Your task to perform on an android device: create a new album in the google photos Image 0: 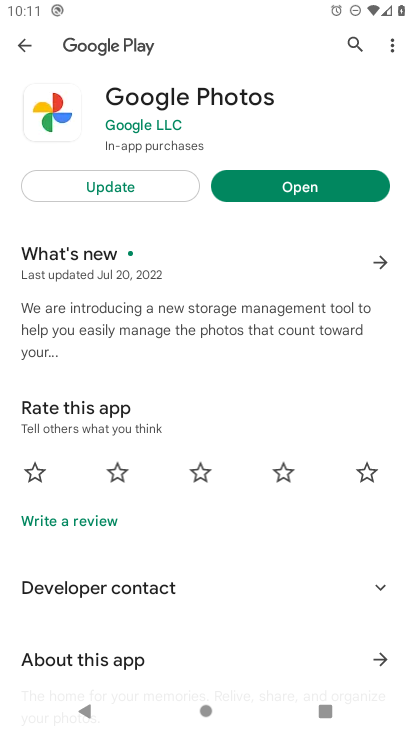
Step 0: press home button
Your task to perform on an android device: create a new album in the google photos Image 1: 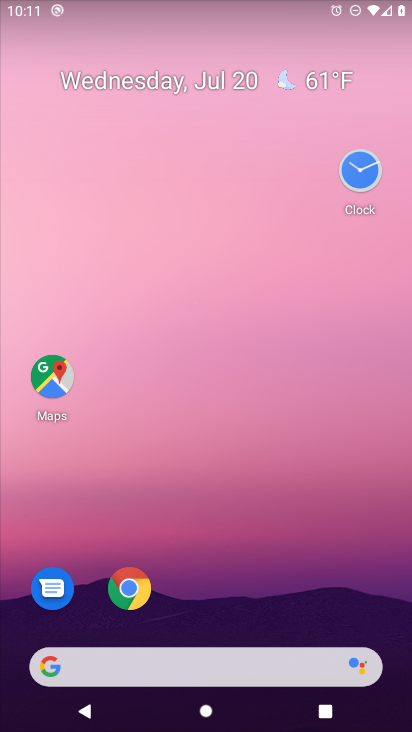
Step 1: drag from (26, 711) to (248, 163)
Your task to perform on an android device: create a new album in the google photos Image 2: 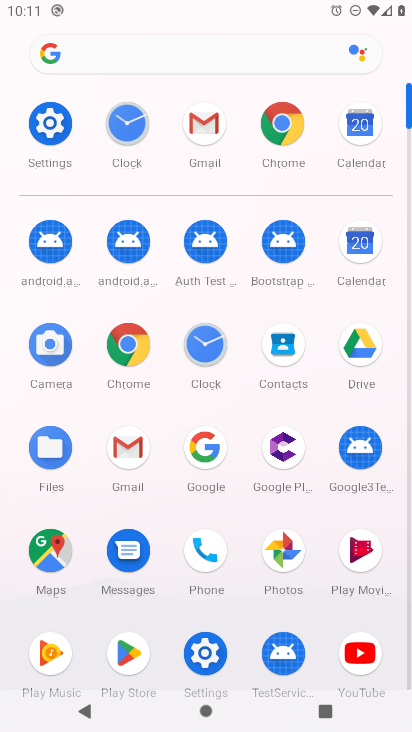
Step 2: click (290, 559)
Your task to perform on an android device: create a new album in the google photos Image 3: 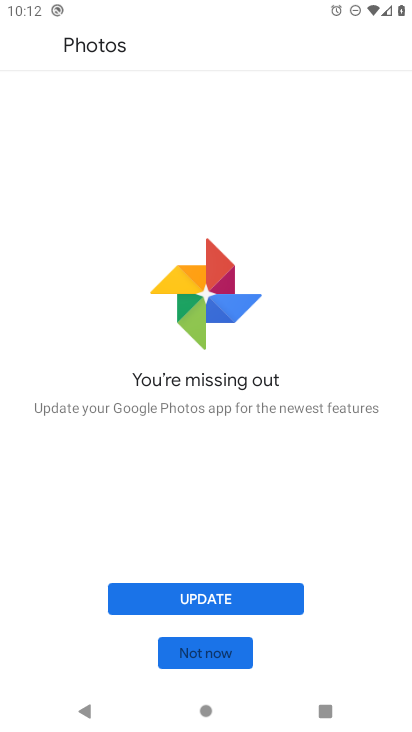
Step 3: click (204, 606)
Your task to perform on an android device: create a new album in the google photos Image 4: 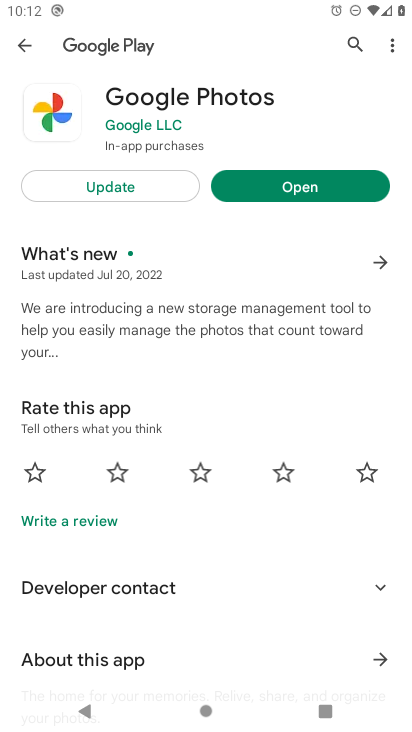
Step 4: click (290, 186)
Your task to perform on an android device: create a new album in the google photos Image 5: 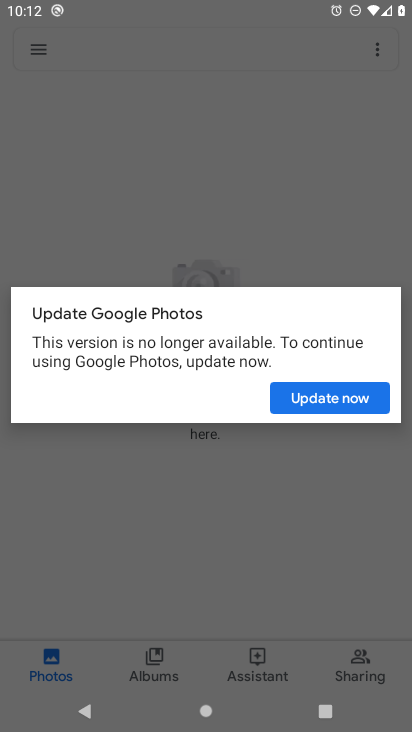
Step 5: task complete